Your task to perform on an android device: Go to display settings Image 0: 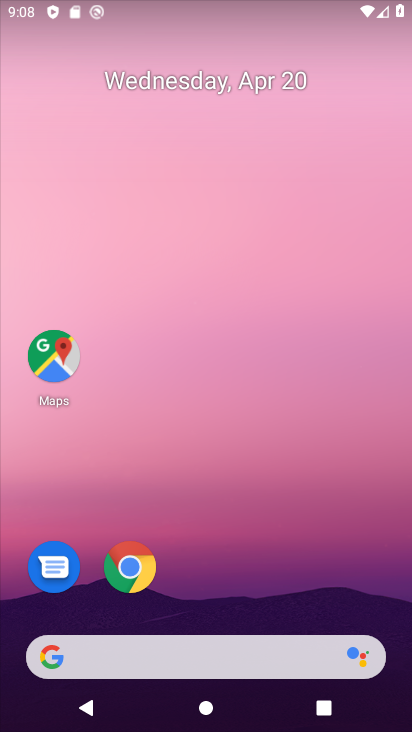
Step 0: drag from (232, 595) to (297, 47)
Your task to perform on an android device: Go to display settings Image 1: 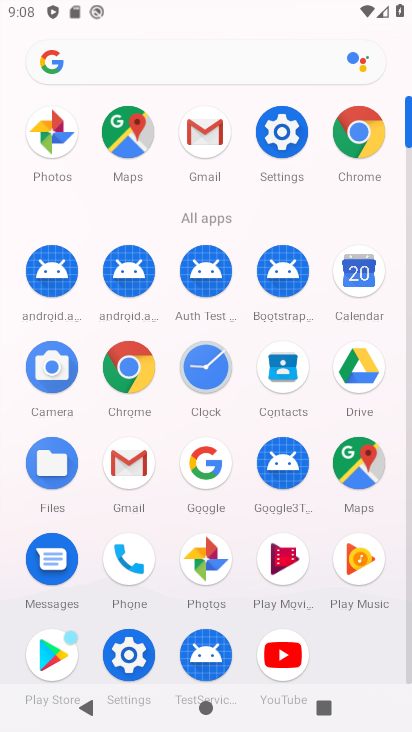
Step 1: click (289, 125)
Your task to perform on an android device: Go to display settings Image 2: 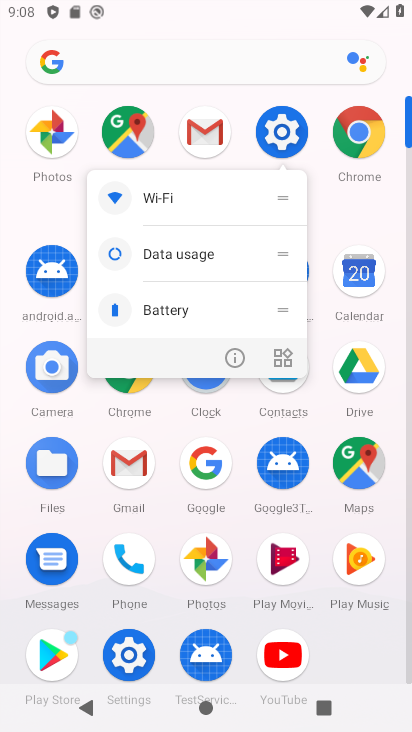
Step 2: click (280, 134)
Your task to perform on an android device: Go to display settings Image 3: 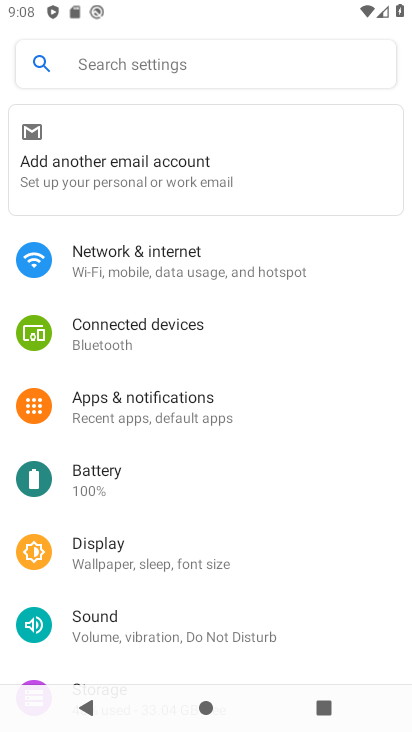
Step 3: click (153, 563)
Your task to perform on an android device: Go to display settings Image 4: 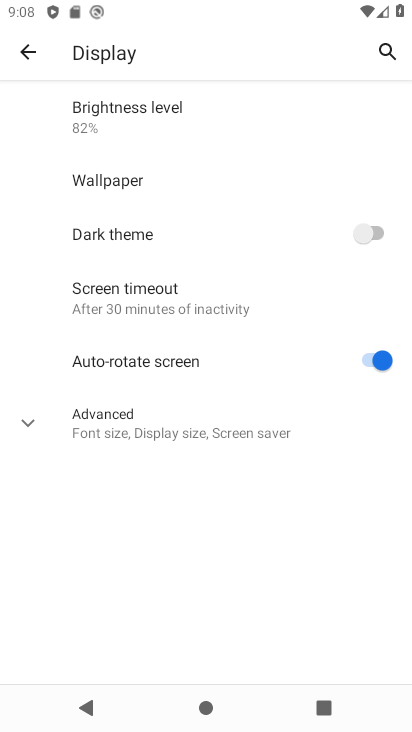
Step 4: task complete